Your task to perform on an android device: allow notifications from all sites in the chrome app Image 0: 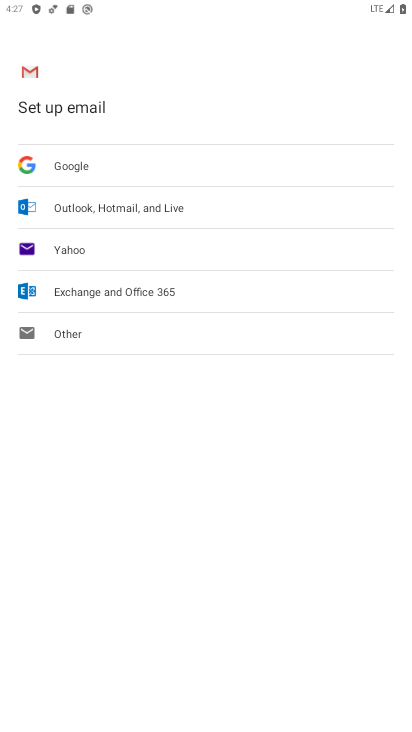
Step 0: press home button
Your task to perform on an android device: allow notifications from all sites in the chrome app Image 1: 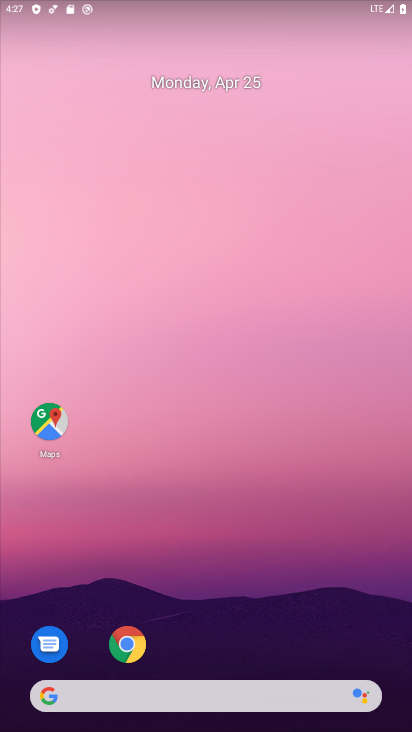
Step 1: click (126, 650)
Your task to perform on an android device: allow notifications from all sites in the chrome app Image 2: 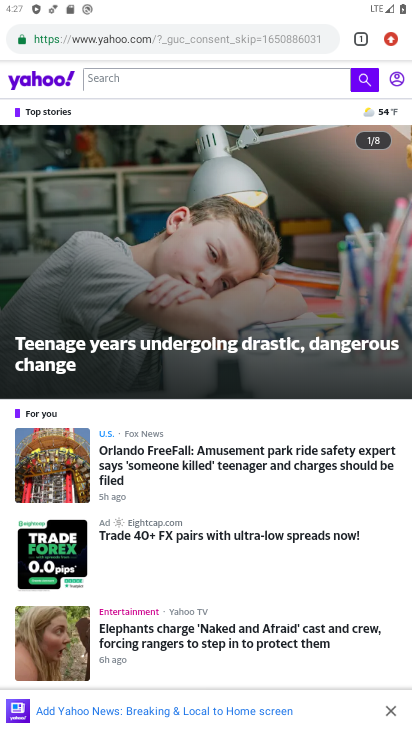
Step 2: click (392, 41)
Your task to perform on an android device: allow notifications from all sites in the chrome app Image 3: 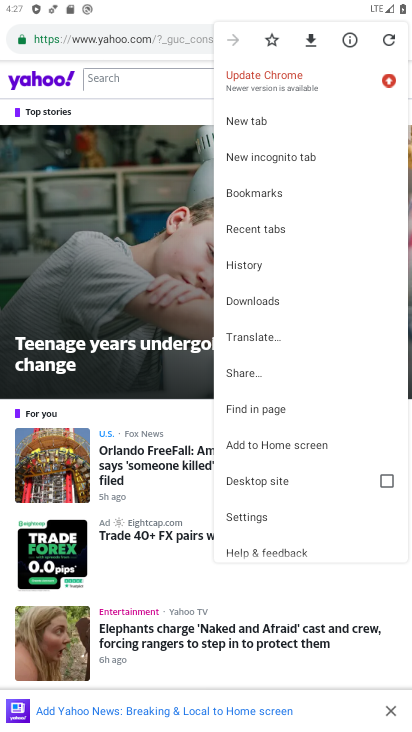
Step 3: click (282, 507)
Your task to perform on an android device: allow notifications from all sites in the chrome app Image 4: 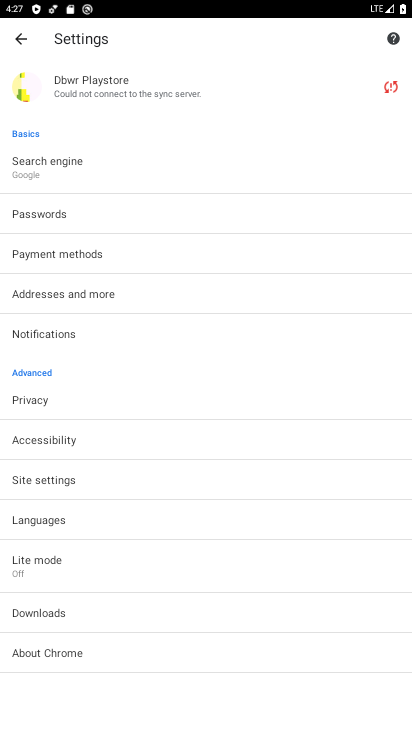
Step 4: click (136, 473)
Your task to perform on an android device: allow notifications from all sites in the chrome app Image 5: 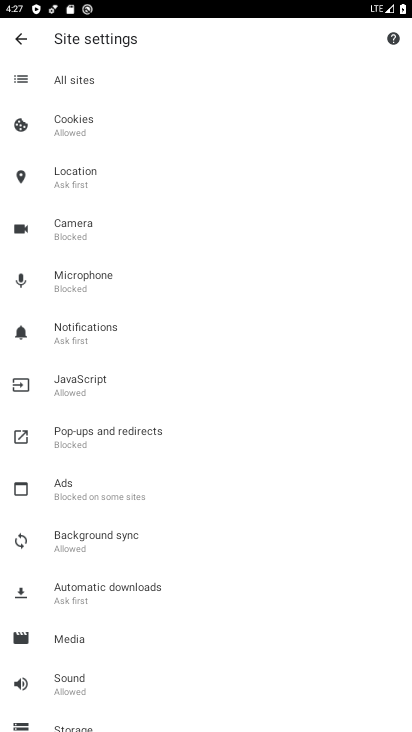
Step 5: click (141, 344)
Your task to perform on an android device: allow notifications from all sites in the chrome app Image 6: 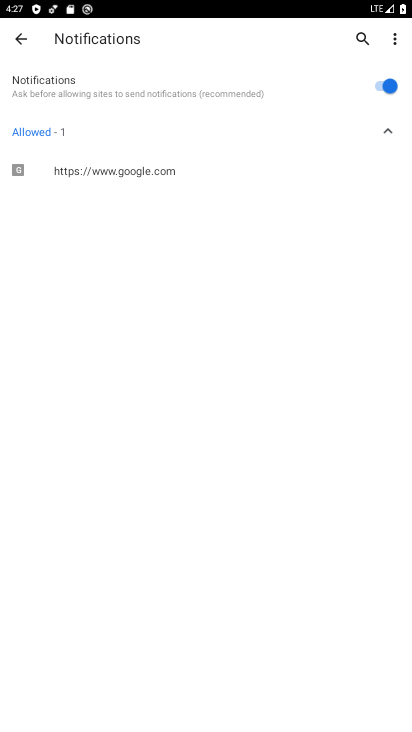
Step 6: task complete